Your task to perform on an android device: Open Google Chrome Image 0: 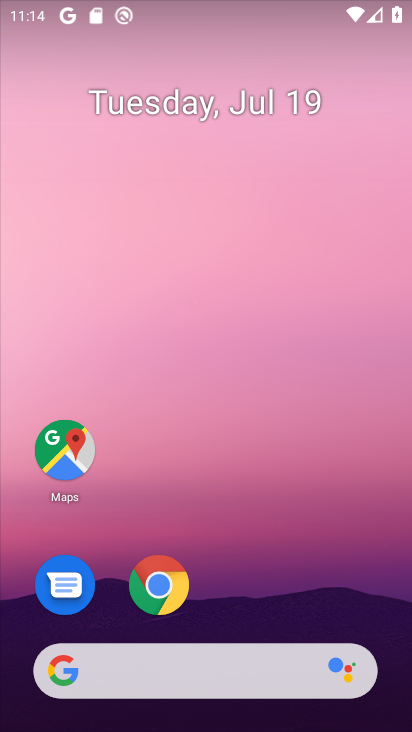
Step 0: press home button
Your task to perform on an android device: Open Google Chrome Image 1: 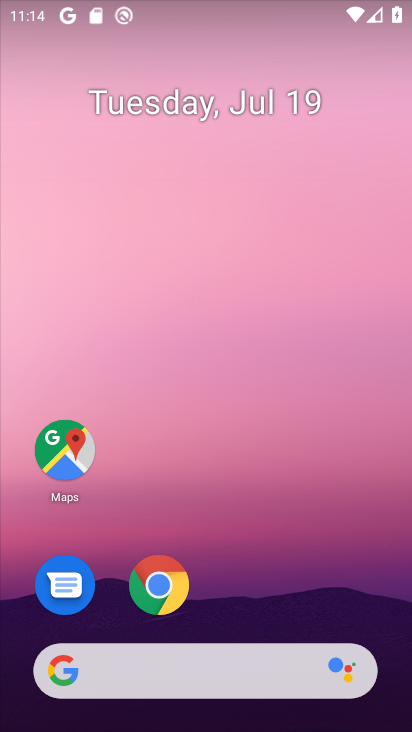
Step 1: click (158, 588)
Your task to perform on an android device: Open Google Chrome Image 2: 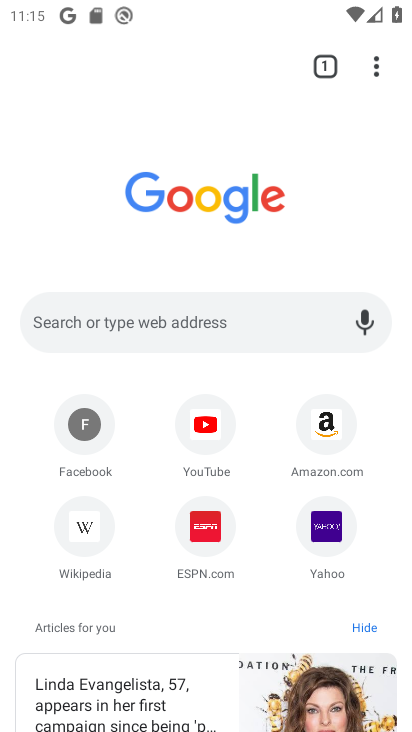
Step 2: task complete